Your task to perform on an android device: add a contact in the contacts app Image 0: 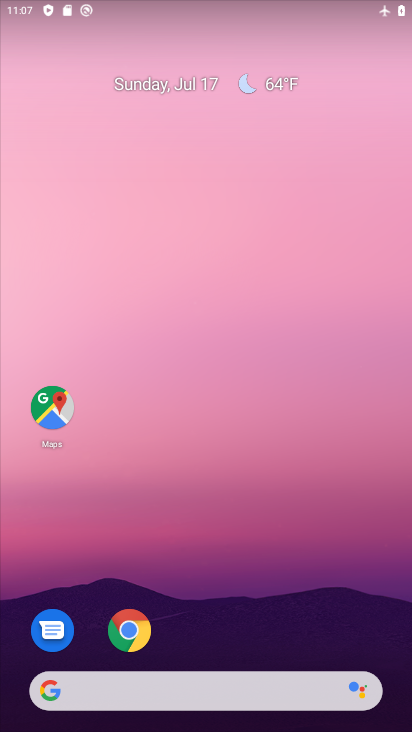
Step 0: drag from (399, 658) to (326, 97)
Your task to perform on an android device: add a contact in the contacts app Image 1: 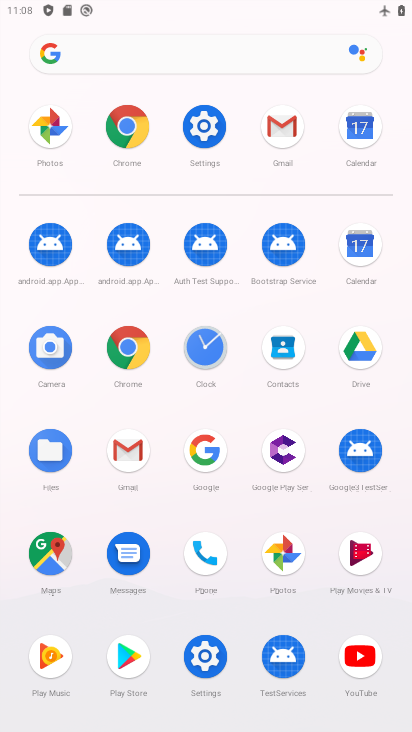
Step 1: click (282, 348)
Your task to perform on an android device: add a contact in the contacts app Image 2: 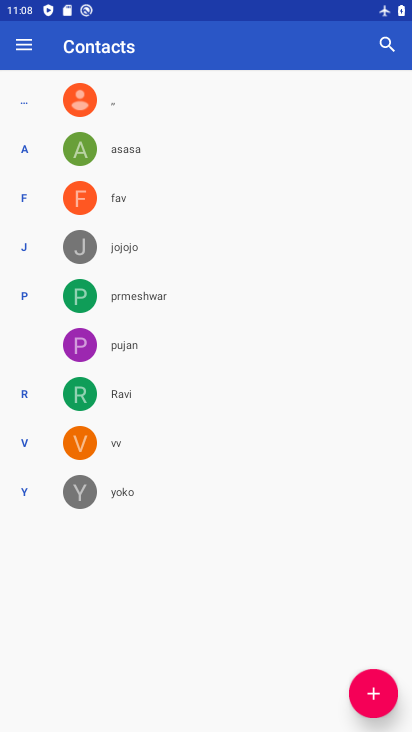
Step 2: click (375, 692)
Your task to perform on an android device: add a contact in the contacts app Image 3: 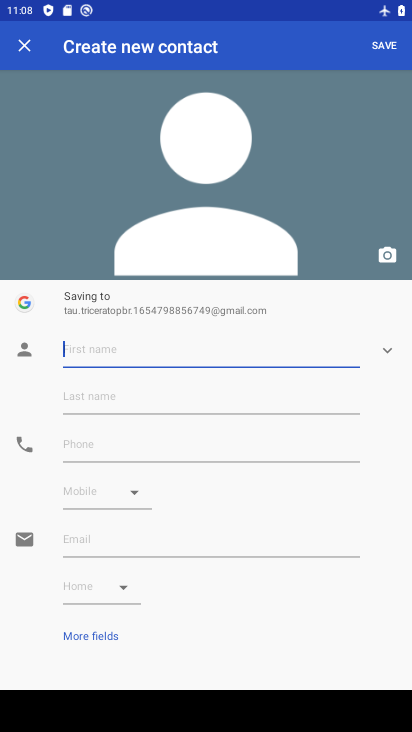
Step 3: type "iuytrhgjop"
Your task to perform on an android device: add a contact in the contacts app Image 4: 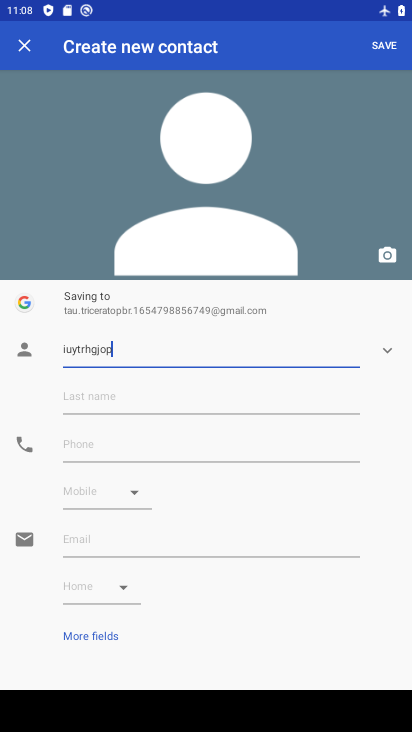
Step 4: click (85, 450)
Your task to perform on an android device: add a contact in the contacts app Image 5: 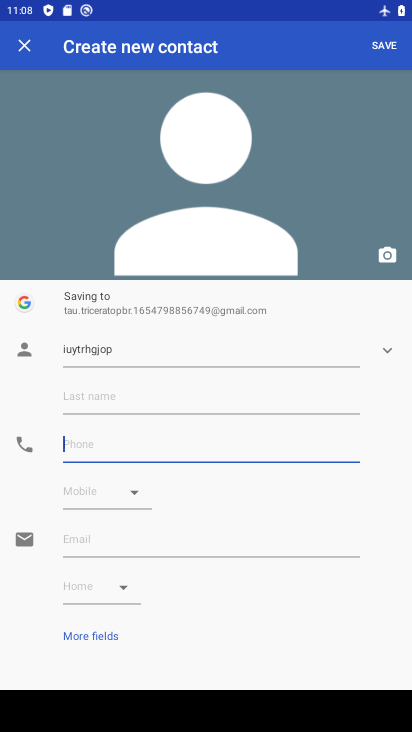
Step 5: type "0098765467"
Your task to perform on an android device: add a contact in the contacts app Image 6: 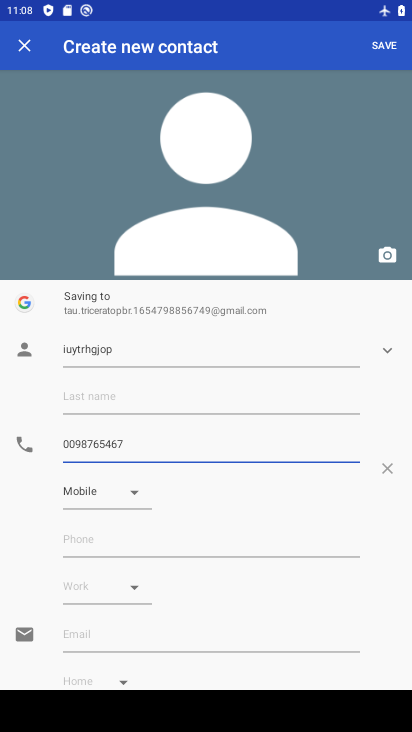
Step 6: click (133, 493)
Your task to perform on an android device: add a contact in the contacts app Image 7: 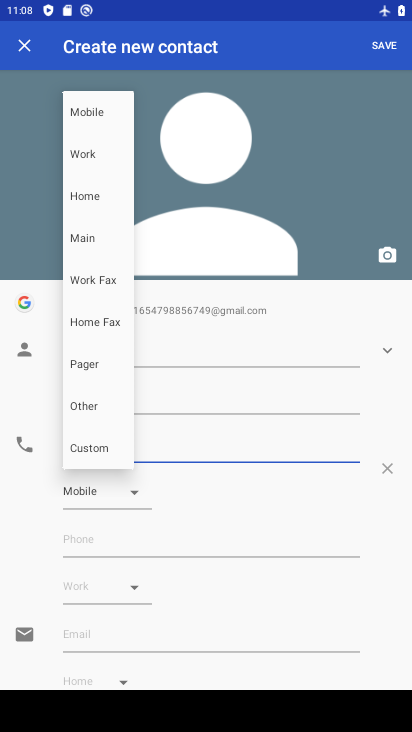
Step 7: click (84, 156)
Your task to perform on an android device: add a contact in the contacts app Image 8: 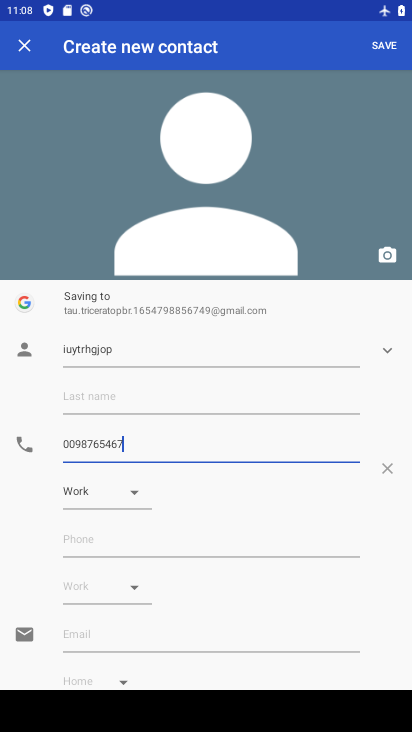
Step 8: click (383, 43)
Your task to perform on an android device: add a contact in the contacts app Image 9: 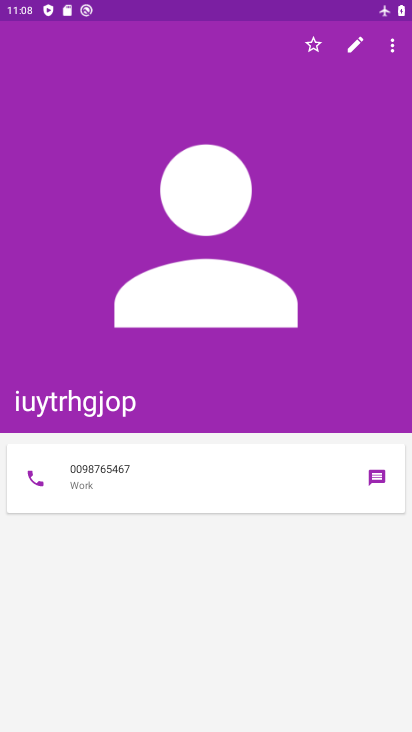
Step 9: task complete